Your task to perform on an android device: empty trash in the gmail app Image 0: 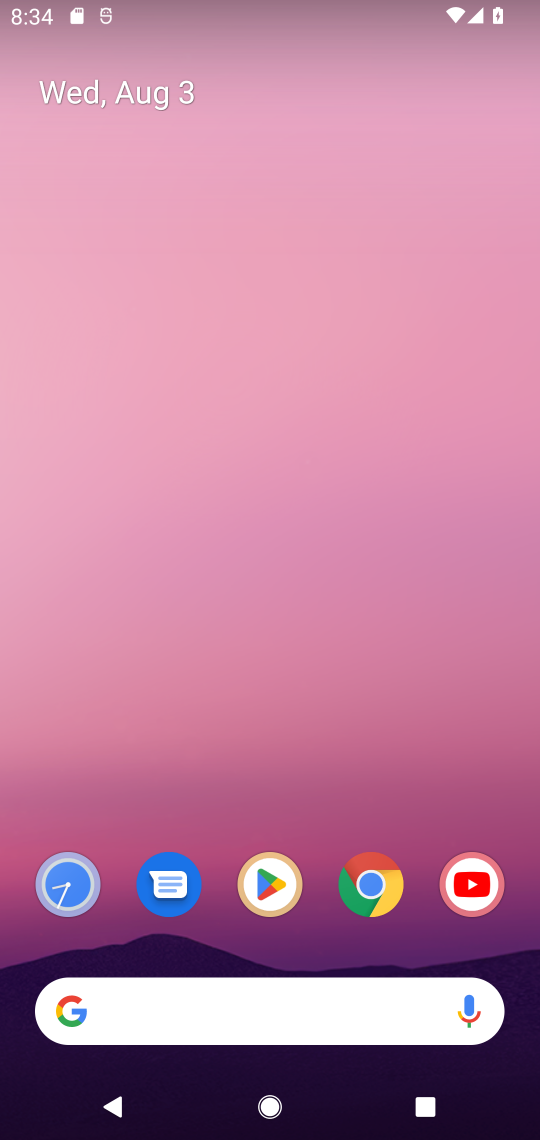
Step 0: drag from (358, 811) to (271, 212)
Your task to perform on an android device: empty trash in the gmail app Image 1: 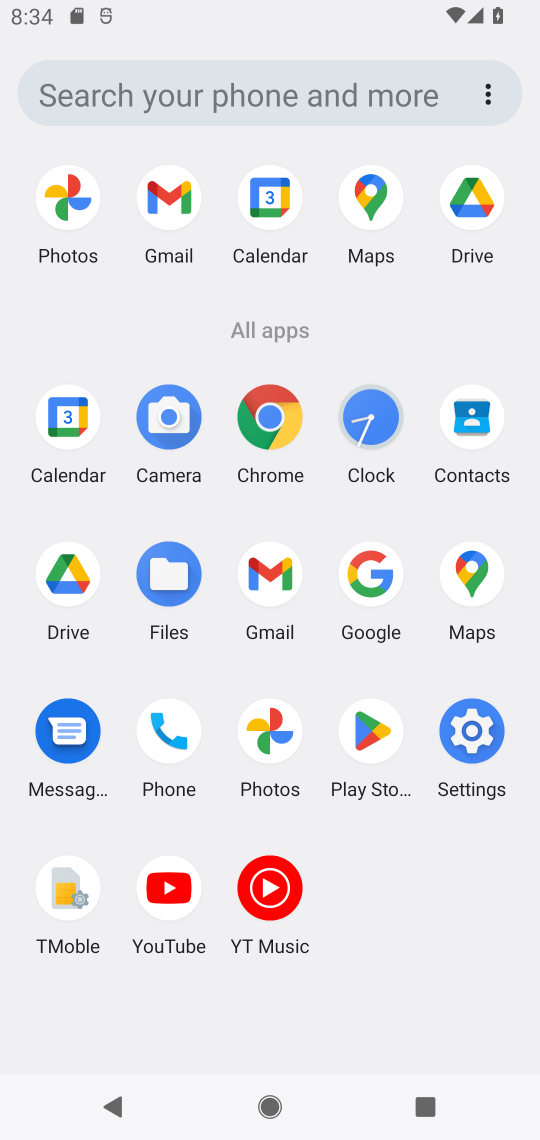
Step 1: click (285, 582)
Your task to perform on an android device: empty trash in the gmail app Image 2: 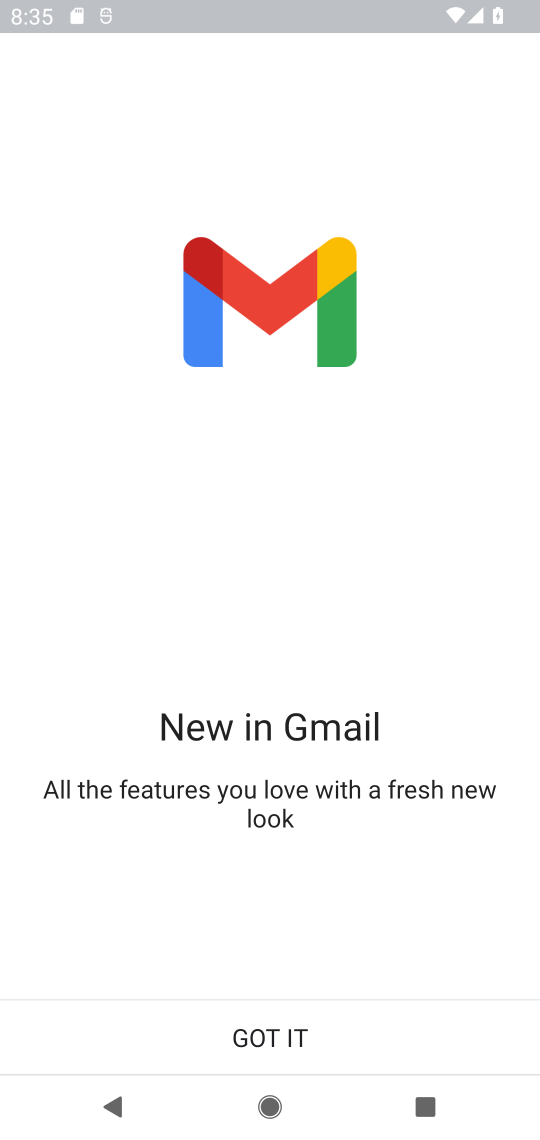
Step 2: click (359, 1024)
Your task to perform on an android device: empty trash in the gmail app Image 3: 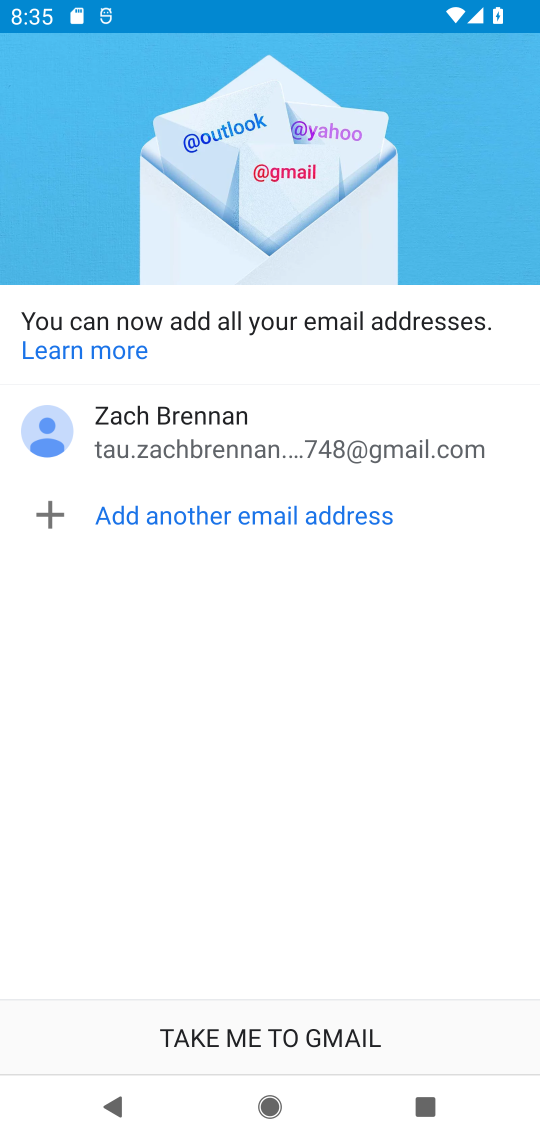
Step 3: click (382, 1029)
Your task to perform on an android device: empty trash in the gmail app Image 4: 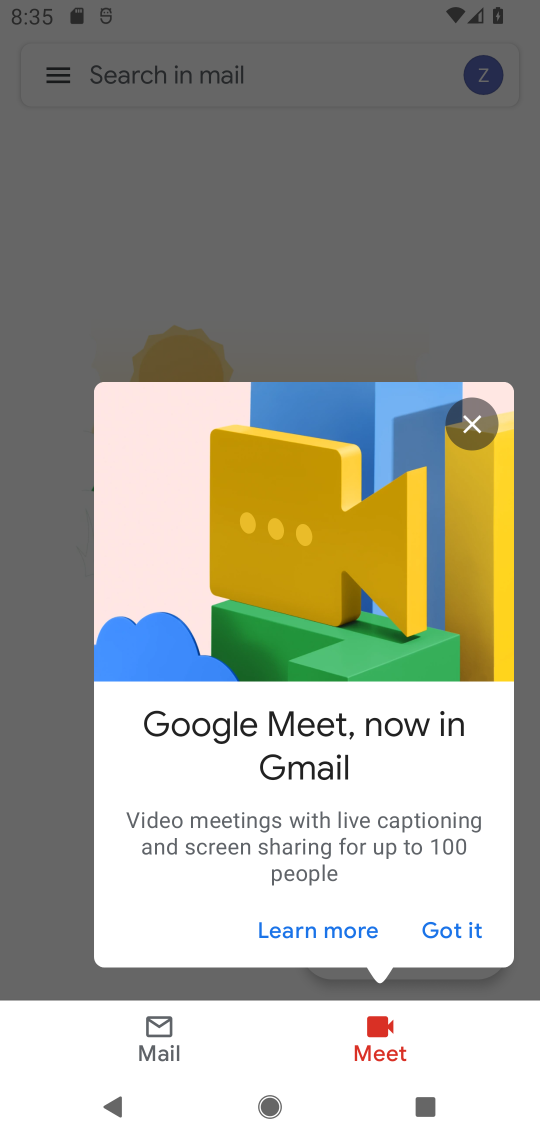
Step 4: click (460, 939)
Your task to perform on an android device: empty trash in the gmail app Image 5: 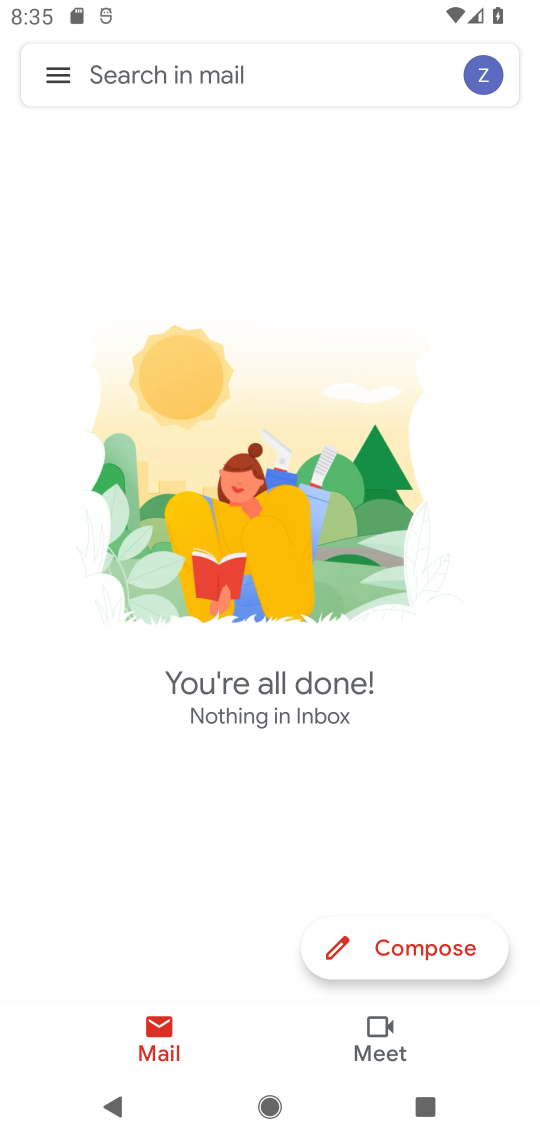
Step 5: click (51, 82)
Your task to perform on an android device: empty trash in the gmail app Image 6: 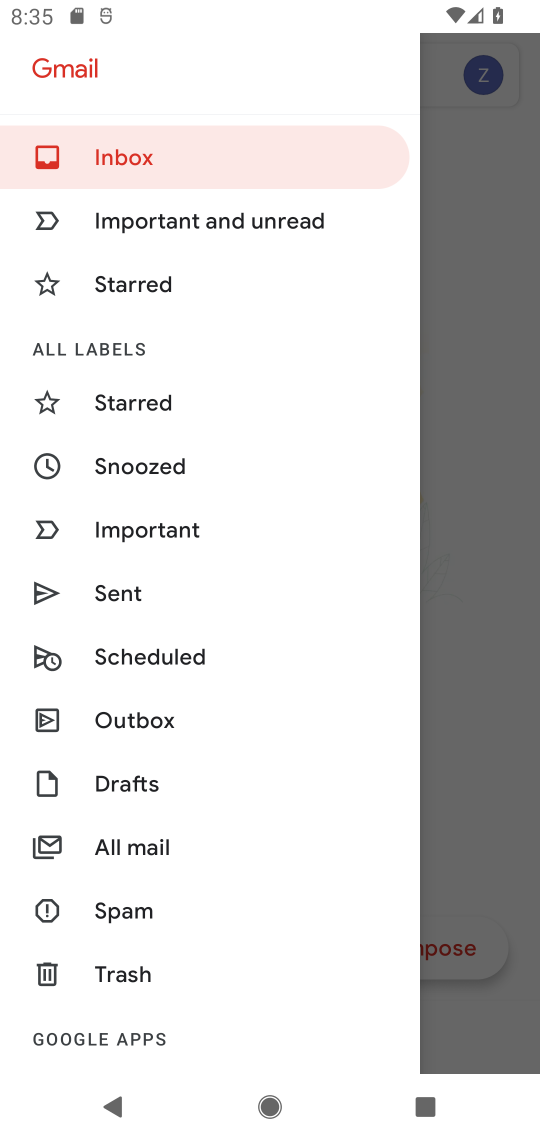
Step 6: click (120, 964)
Your task to perform on an android device: empty trash in the gmail app Image 7: 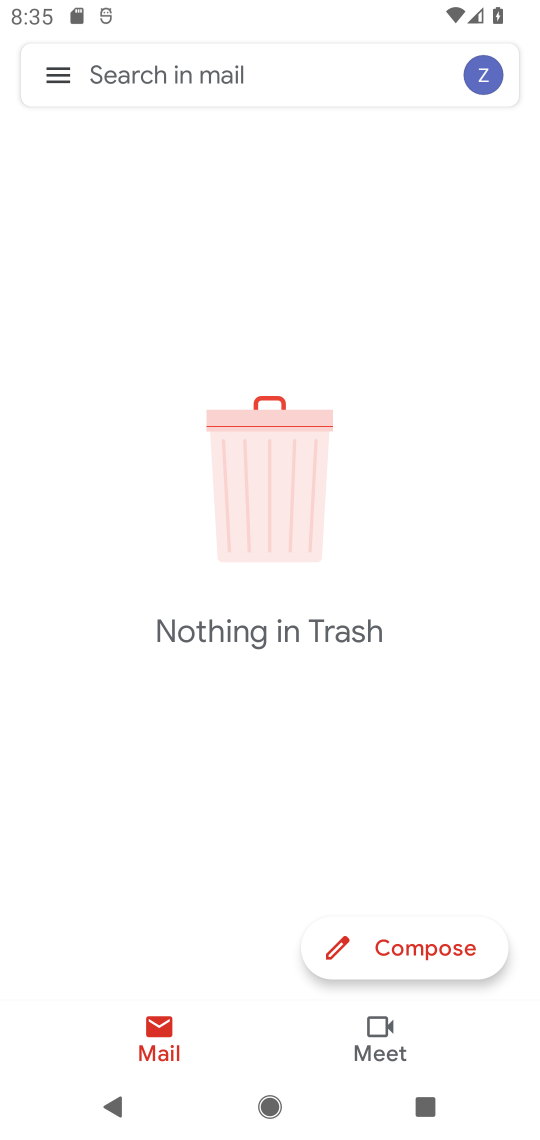
Step 7: click (120, 964)
Your task to perform on an android device: empty trash in the gmail app Image 8: 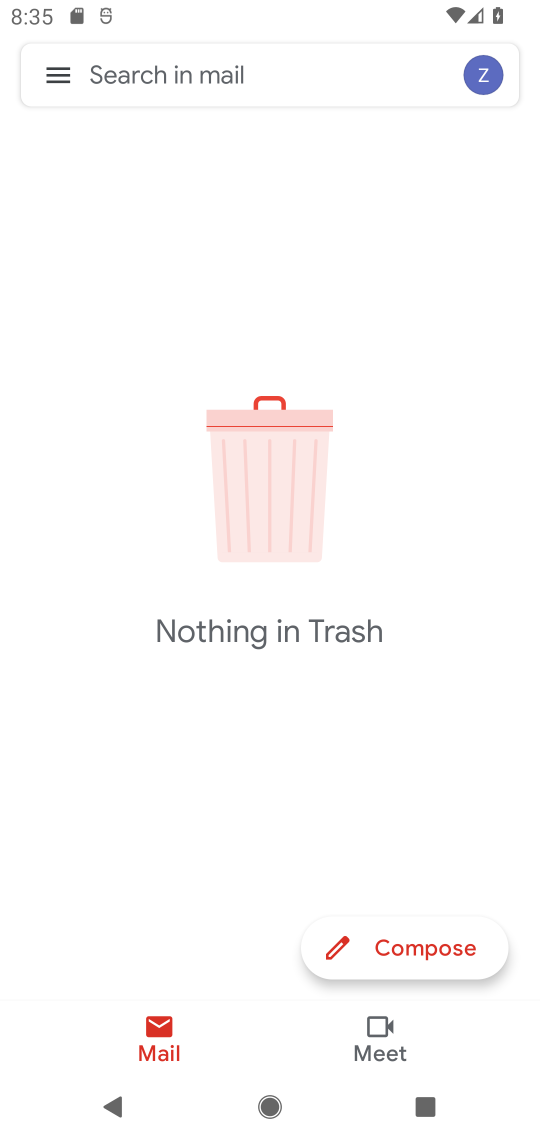
Step 8: task complete